Your task to perform on an android device: Do I have any events this weekend? Image 0: 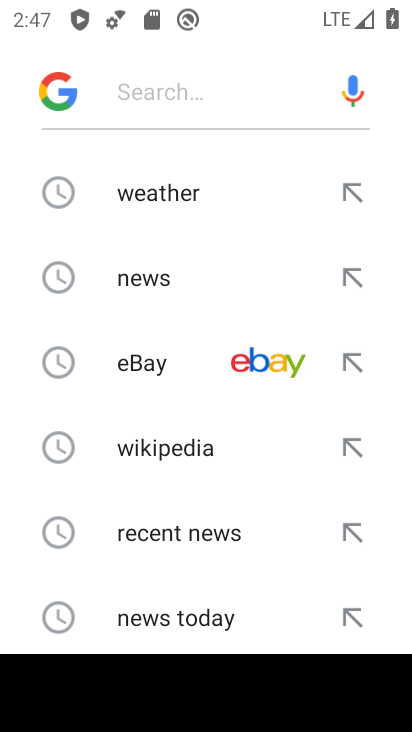
Step 0: press home button
Your task to perform on an android device: Do I have any events this weekend? Image 1: 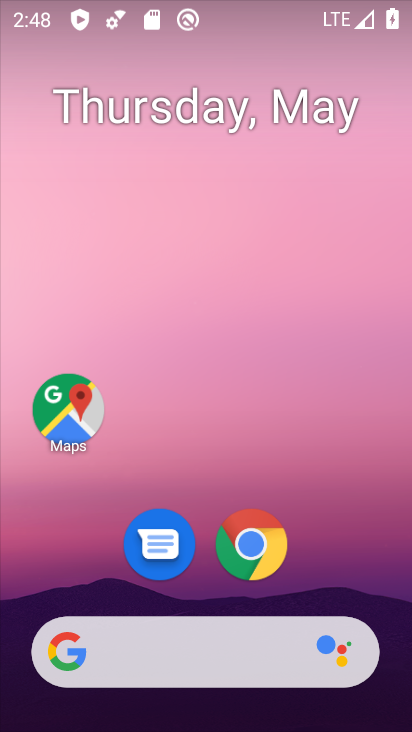
Step 1: drag from (224, 691) to (257, 119)
Your task to perform on an android device: Do I have any events this weekend? Image 2: 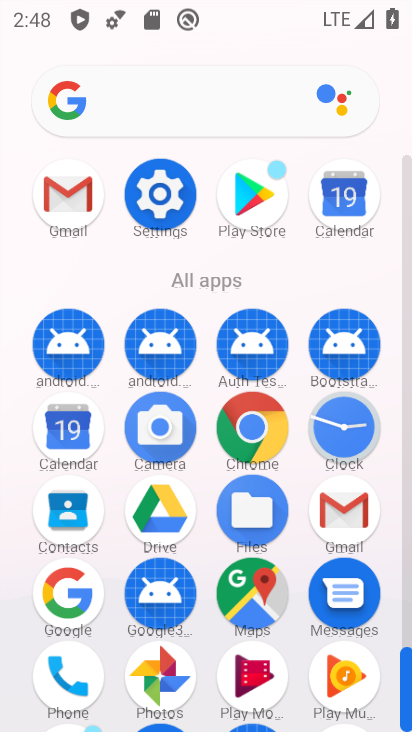
Step 2: click (86, 437)
Your task to perform on an android device: Do I have any events this weekend? Image 3: 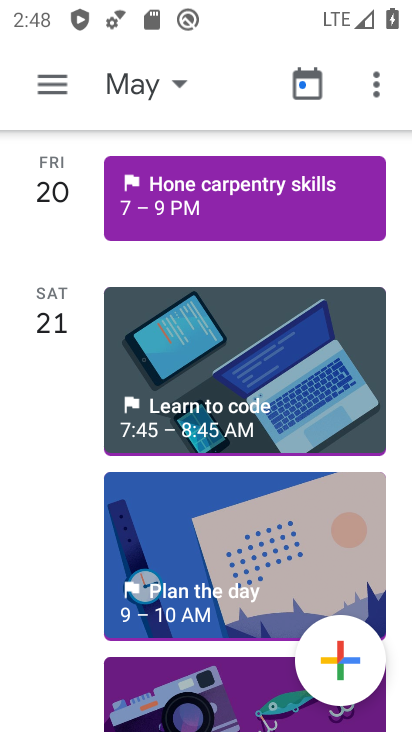
Step 3: task complete